Your task to perform on an android device: turn notification dots on Image 0: 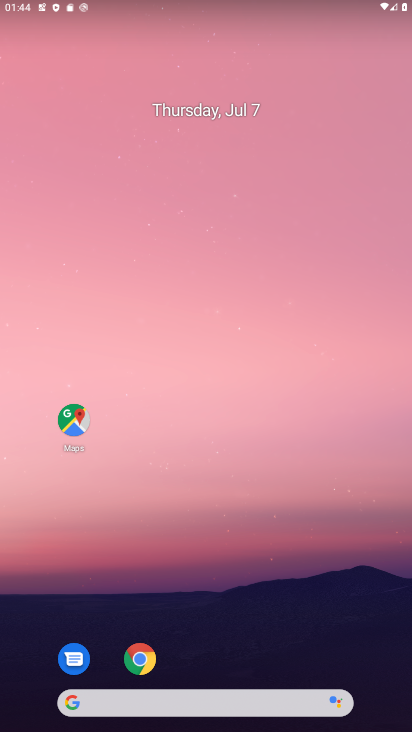
Step 0: drag from (197, 662) to (195, 89)
Your task to perform on an android device: turn notification dots on Image 1: 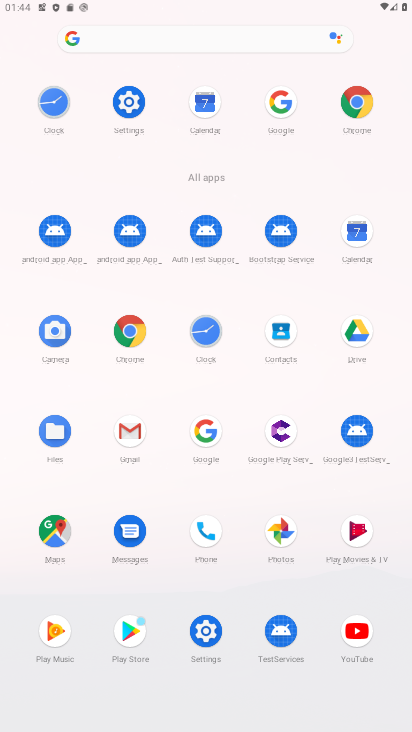
Step 1: click (209, 630)
Your task to perform on an android device: turn notification dots on Image 2: 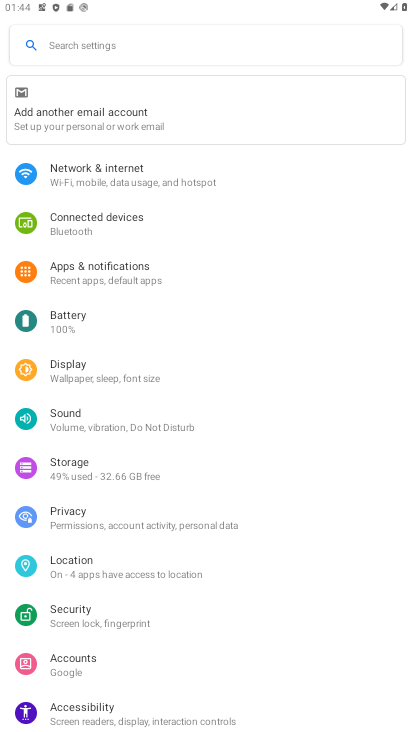
Step 2: click (119, 271)
Your task to perform on an android device: turn notification dots on Image 3: 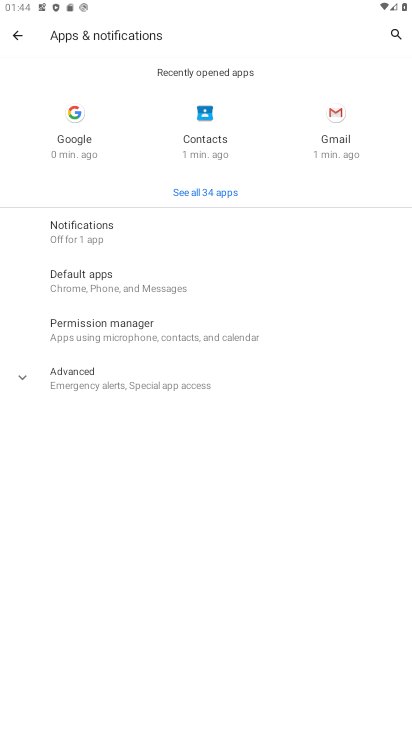
Step 3: click (97, 244)
Your task to perform on an android device: turn notification dots on Image 4: 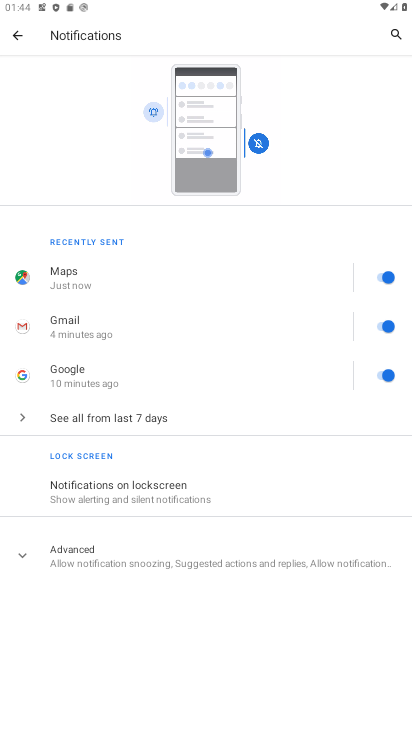
Step 4: click (76, 558)
Your task to perform on an android device: turn notification dots on Image 5: 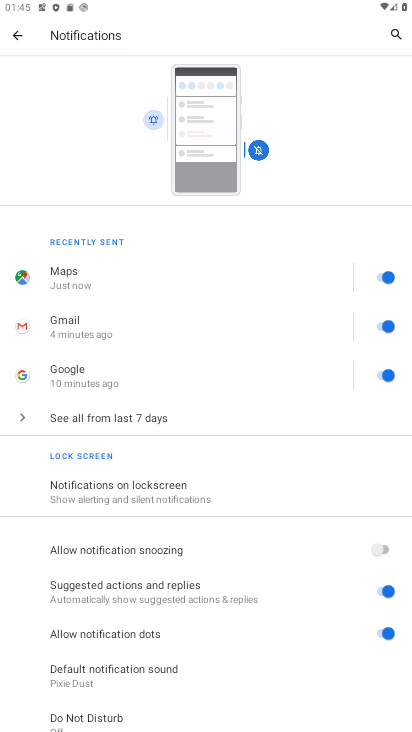
Step 5: task complete